Your task to perform on an android device: star an email in the gmail app Image 0: 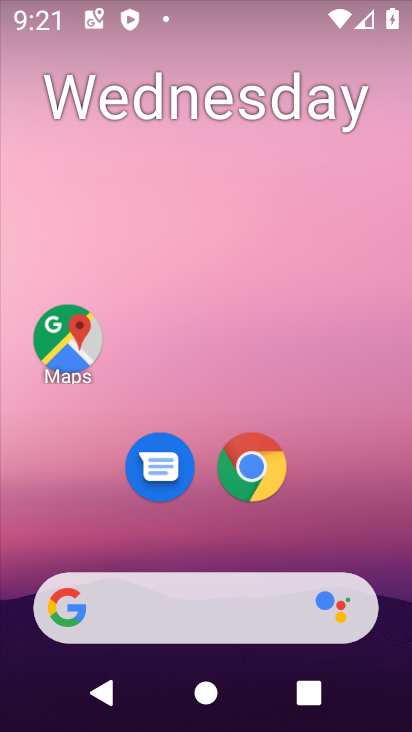
Step 0: drag from (239, 637) to (246, 156)
Your task to perform on an android device: star an email in the gmail app Image 1: 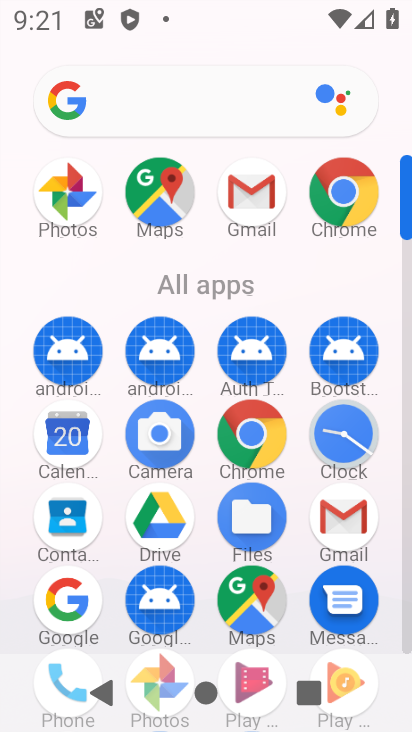
Step 1: click (253, 189)
Your task to perform on an android device: star an email in the gmail app Image 2: 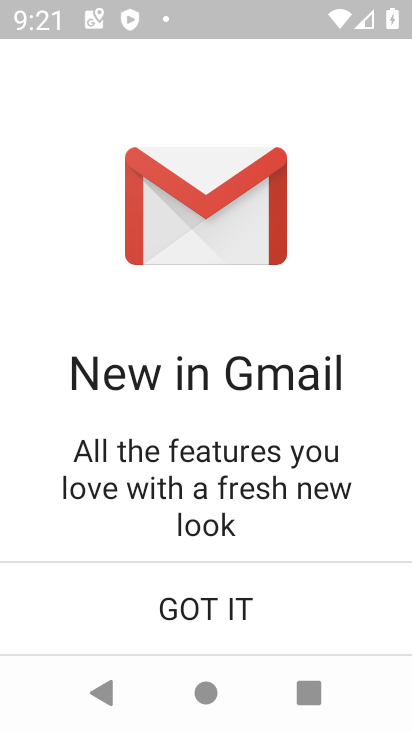
Step 2: click (203, 604)
Your task to perform on an android device: star an email in the gmail app Image 3: 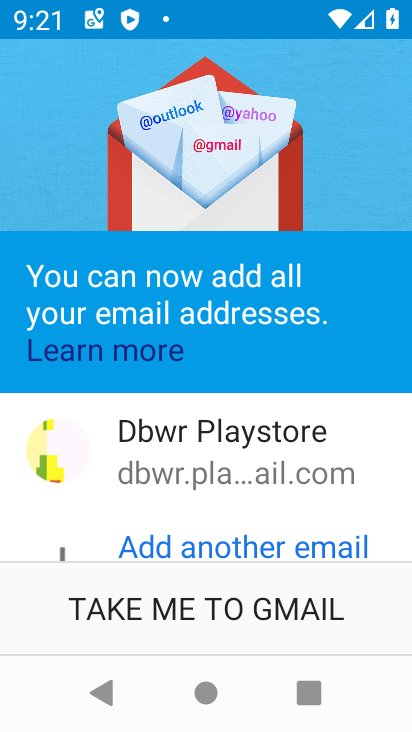
Step 3: click (203, 605)
Your task to perform on an android device: star an email in the gmail app Image 4: 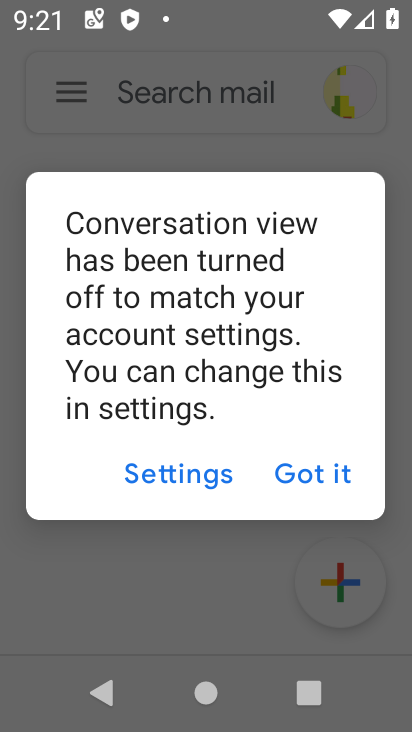
Step 4: click (308, 472)
Your task to perform on an android device: star an email in the gmail app Image 5: 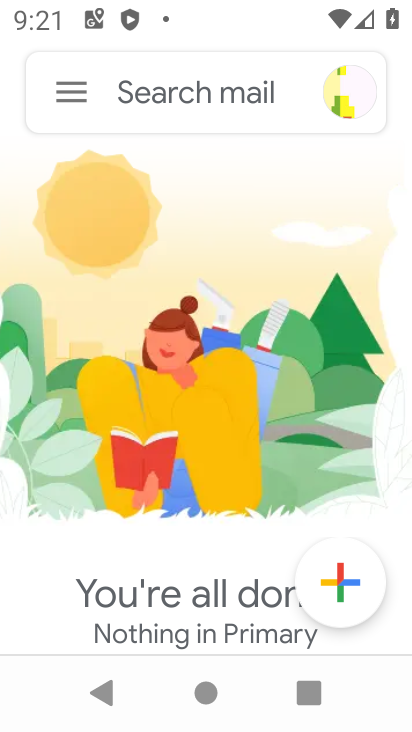
Step 5: task complete